Your task to perform on an android device: find snoozed emails in the gmail app Image 0: 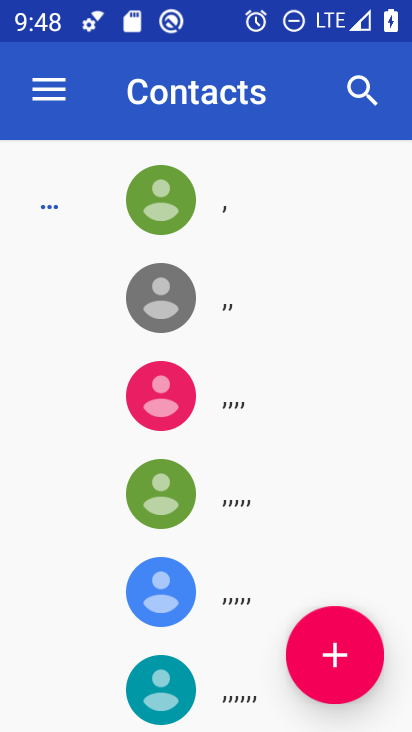
Step 0: press home button
Your task to perform on an android device: find snoozed emails in the gmail app Image 1: 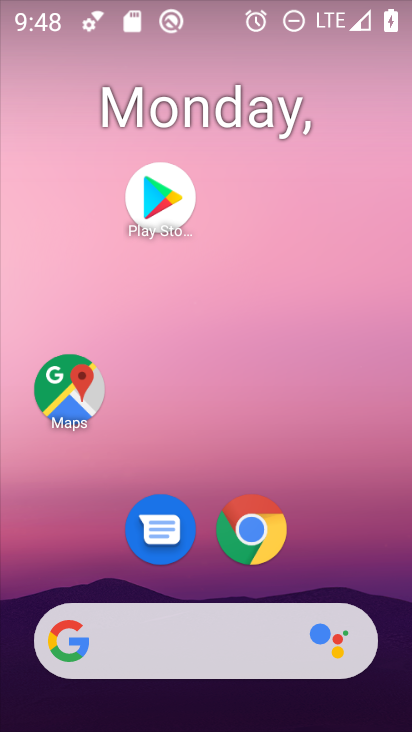
Step 1: drag from (344, 549) to (180, 42)
Your task to perform on an android device: find snoozed emails in the gmail app Image 2: 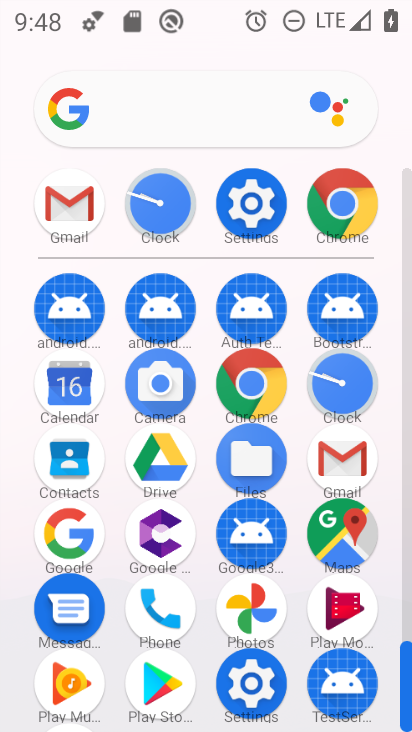
Step 2: click (333, 458)
Your task to perform on an android device: find snoozed emails in the gmail app Image 3: 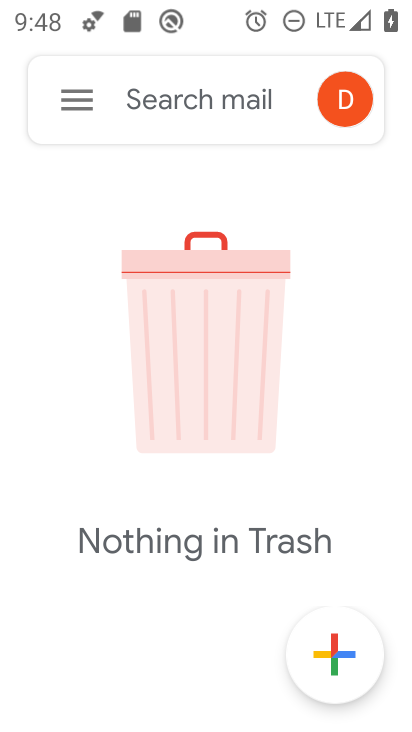
Step 3: click (72, 102)
Your task to perform on an android device: find snoozed emails in the gmail app Image 4: 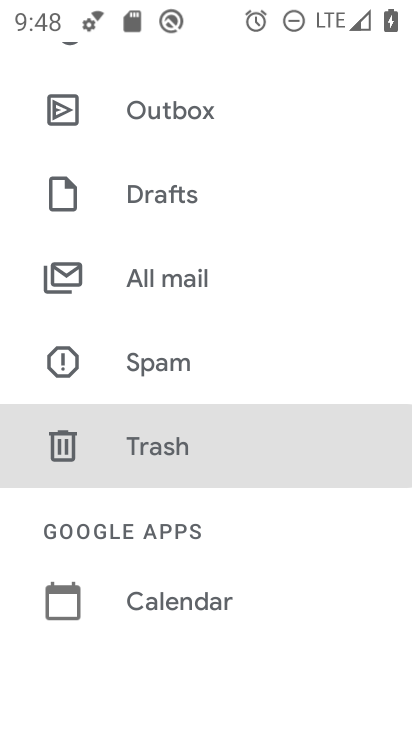
Step 4: drag from (265, 286) to (277, 666)
Your task to perform on an android device: find snoozed emails in the gmail app Image 5: 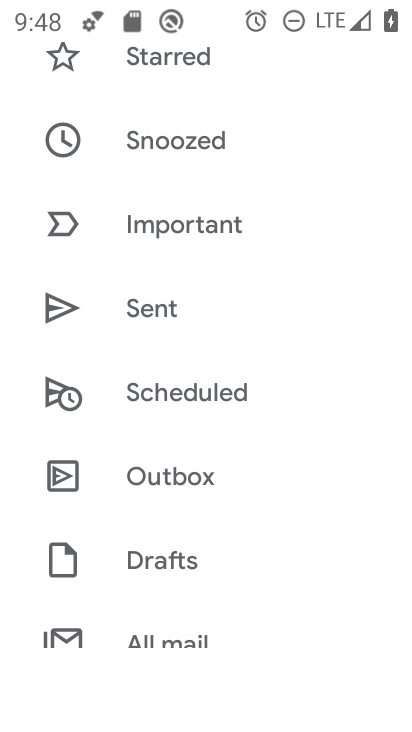
Step 5: click (187, 136)
Your task to perform on an android device: find snoozed emails in the gmail app Image 6: 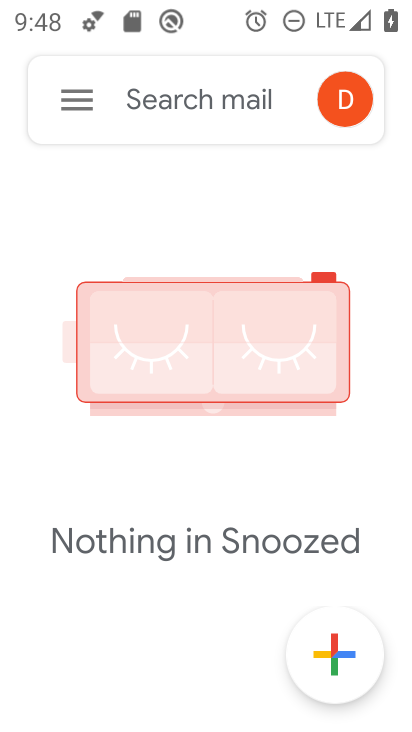
Step 6: task complete